Your task to perform on an android device: stop showing notifications on the lock screen Image 0: 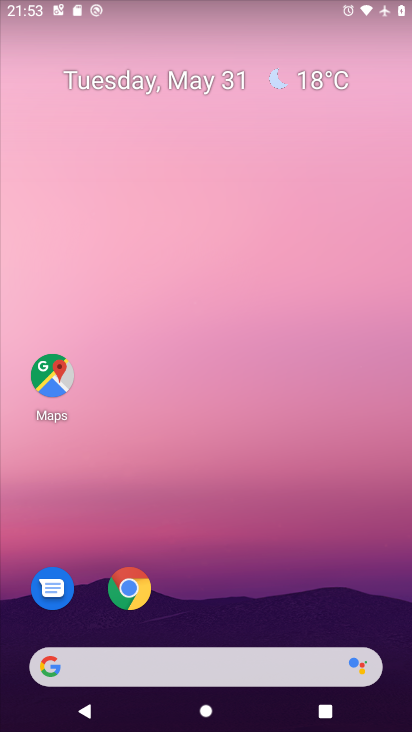
Step 0: press home button
Your task to perform on an android device: stop showing notifications on the lock screen Image 1: 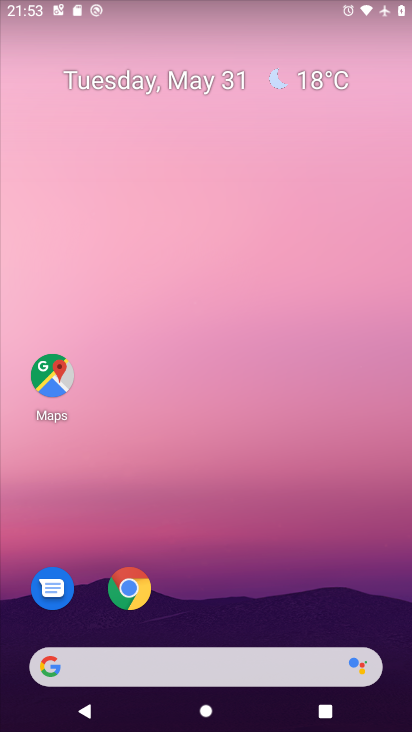
Step 1: drag from (130, 671) to (188, 33)
Your task to perform on an android device: stop showing notifications on the lock screen Image 2: 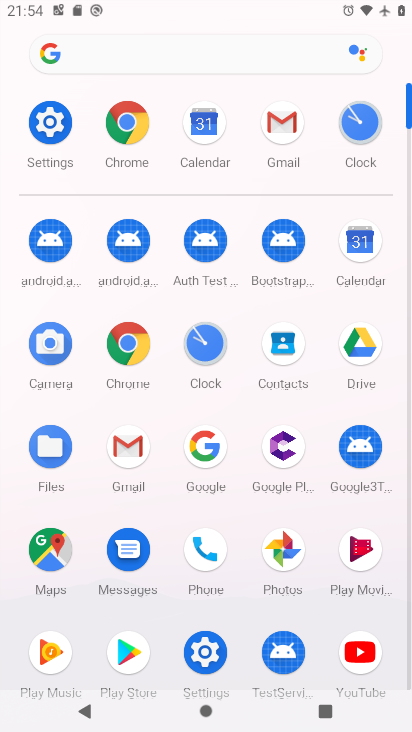
Step 2: click (52, 122)
Your task to perform on an android device: stop showing notifications on the lock screen Image 3: 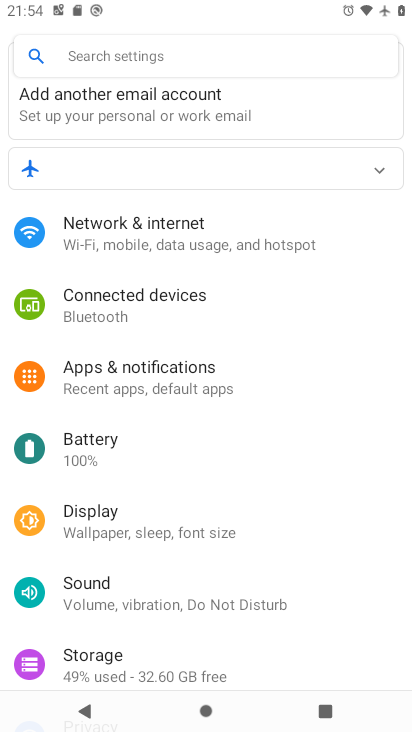
Step 3: click (168, 383)
Your task to perform on an android device: stop showing notifications on the lock screen Image 4: 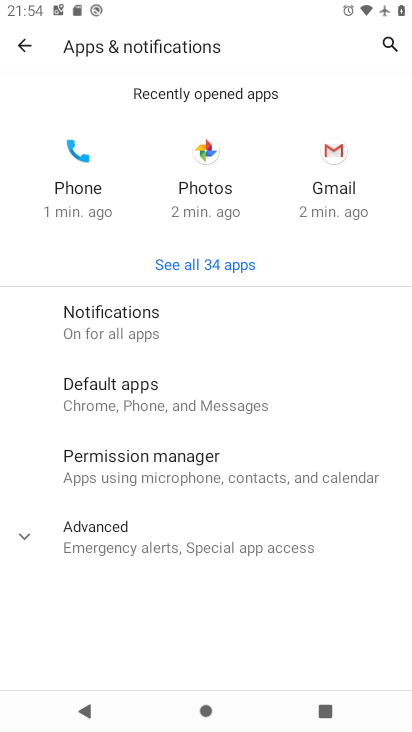
Step 4: click (122, 328)
Your task to perform on an android device: stop showing notifications on the lock screen Image 5: 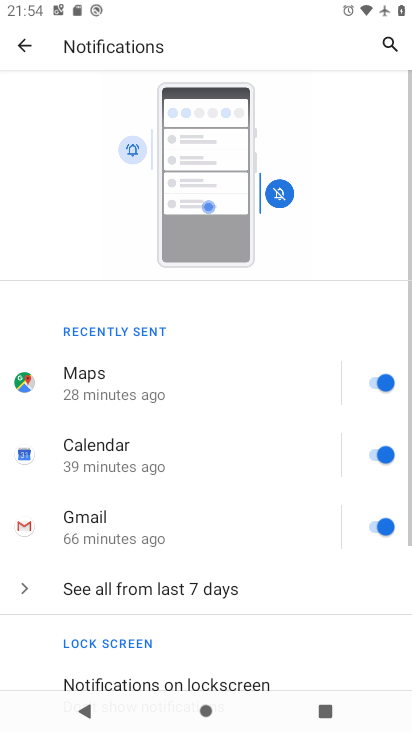
Step 5: drag from (161, 621) to (264, 242)
Your task to perform on an android device: stop showing notifications on the lock screen Image 6: 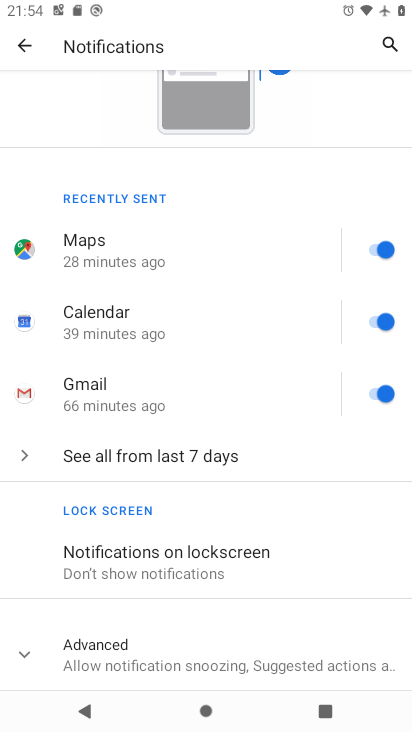
Step 6: click (139, 563)
Your task to perform on an android device: stop showing notifications on the lock screen Image 7: 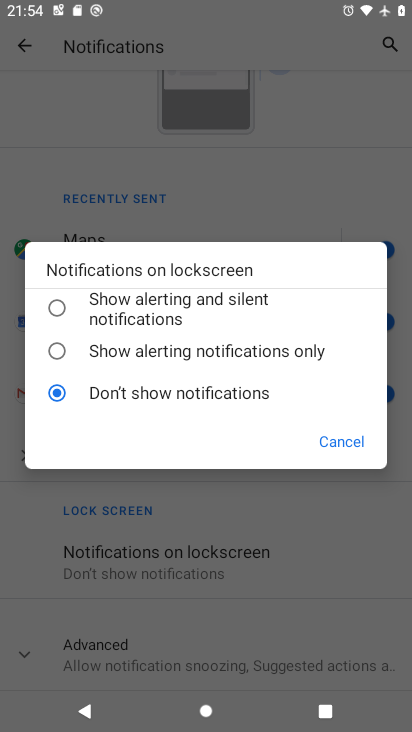
Step 7: task complete